Your task to perform on an android device: change text size in settings app Image 0: 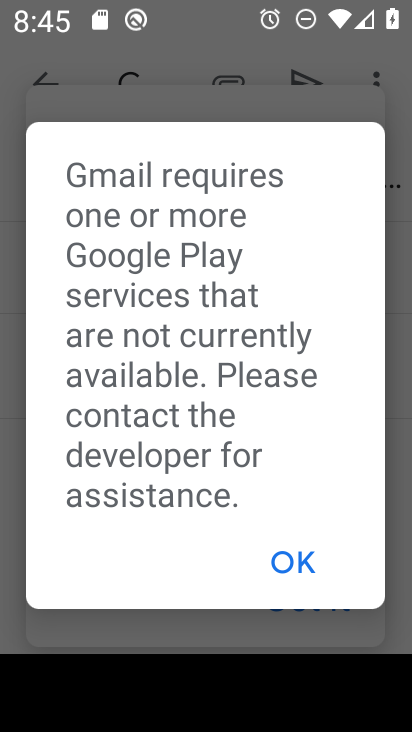
Step 0: press home button
Your task to perform on an android device: change text size in settings app Image 1: 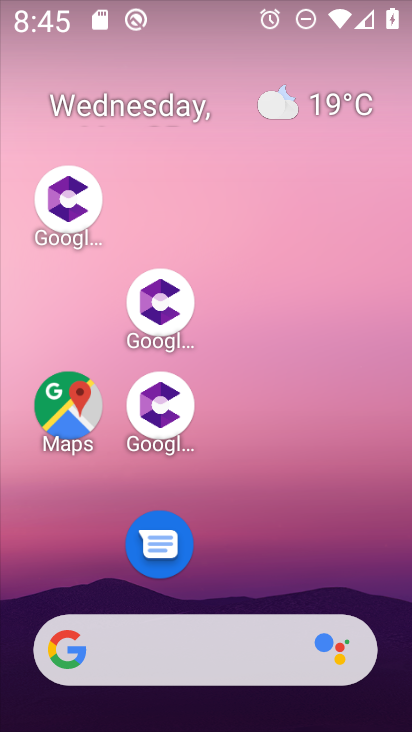
Step 1: drag from (274, 508) to (166, 0)
Your task to perform on an android device: change text size in settings app Image 2: 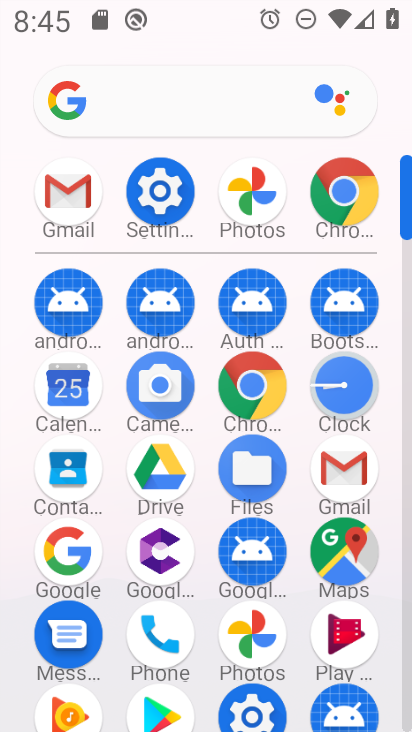
Step 2: click (157, 199)
Your task to perform on an android device: change text size in settings app Image 3: 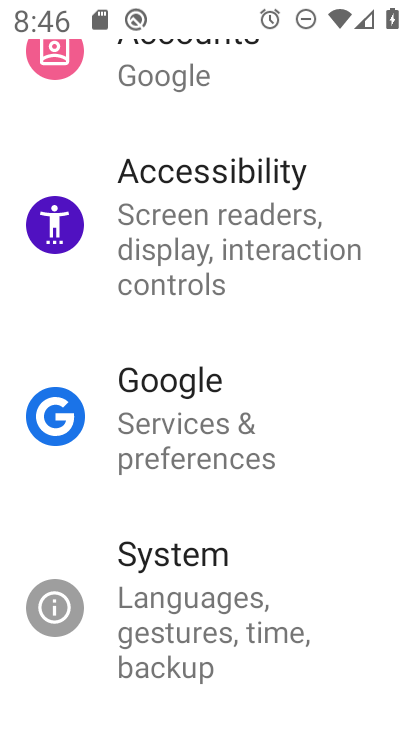
Step 3: drag from (228, 287) to (349, 725)
Your task to perform on an android device: change text size in settings app Image 4: 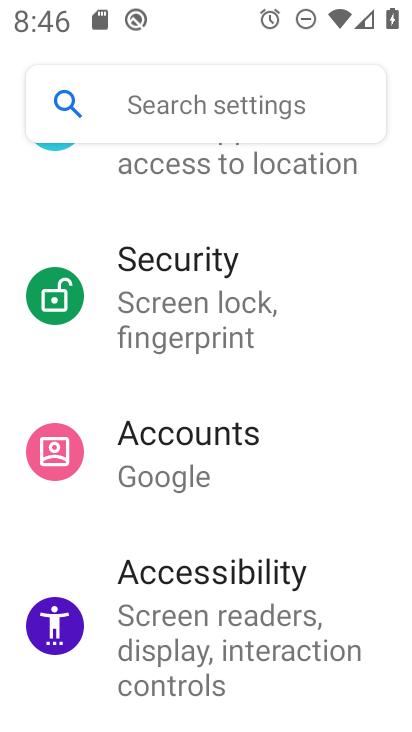
Step 4: drag from (249, 231) to (185, 703)
Your task to perform on an android device: change text size in settings app Image 5: 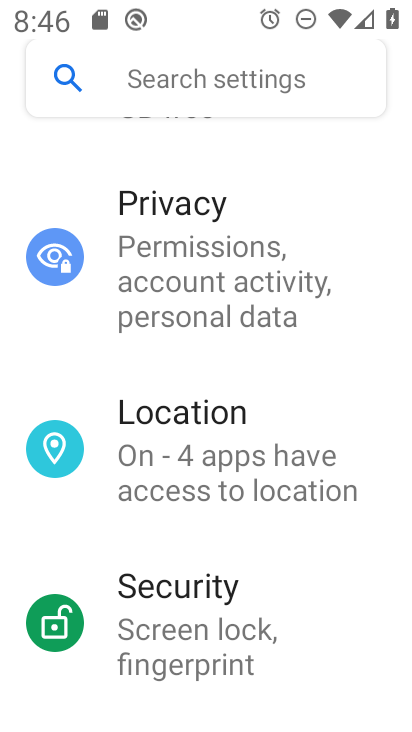
Step 5: drag from (331, 388) to (262, 675)
Your task to perform on an android device: change text size in settings app Image 6: 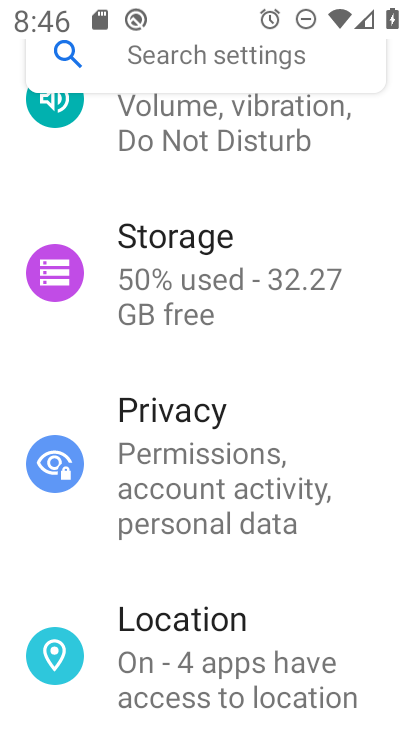
Step 6: drag from (294, 408) to (238, 601)
Your task to perform on an android device: change text size in settings app Image 7: 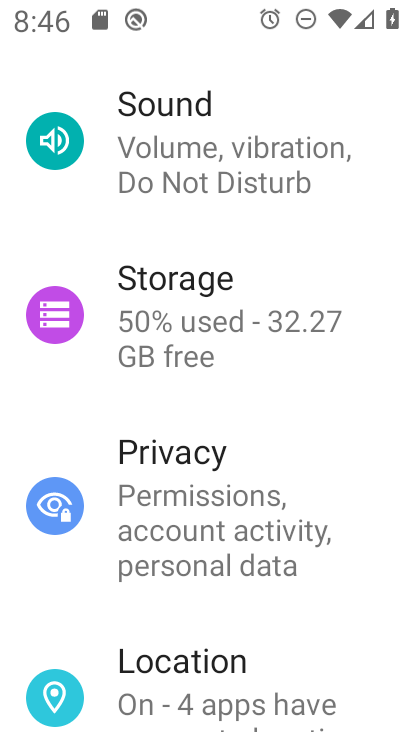
Step 7: drag from (218, 208) to (89, 692)
Your task to perform on an android device: change text size in settings app Image 8: 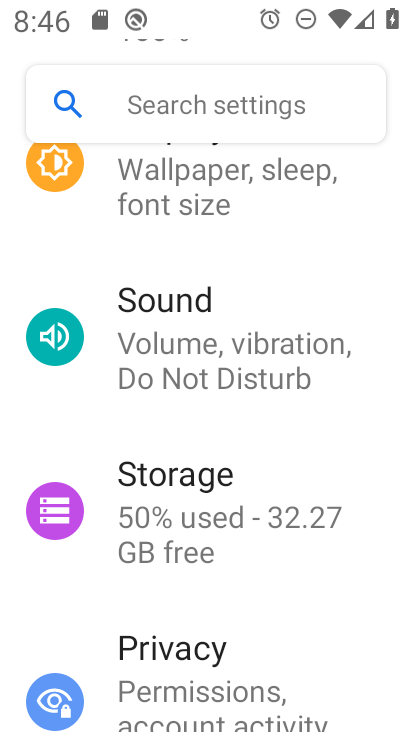
Step 8: click (175, 181)
Your task to perform on an android device: change text size in settings app Image 9: 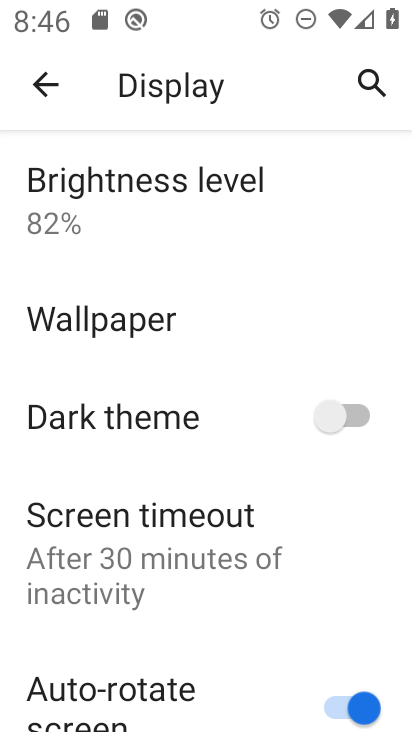
Step 9: drag from (204, 614) to (195, 101)
Your task to perform on an android device: change text size in settings app Image 10: 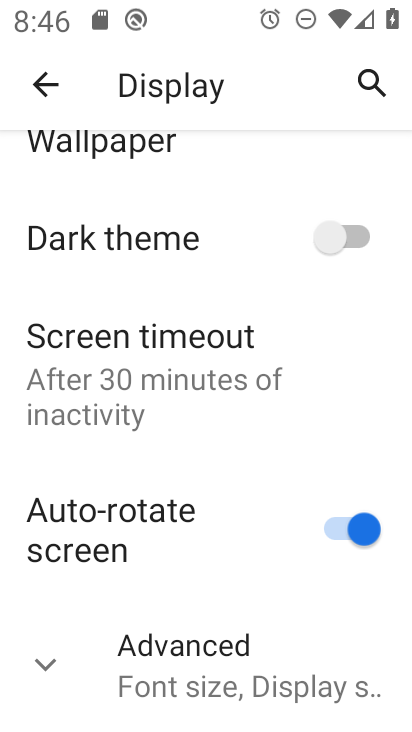
Step 10: click (65, 665)
Your task to perform on an android device: change text size in settings app Image 11: 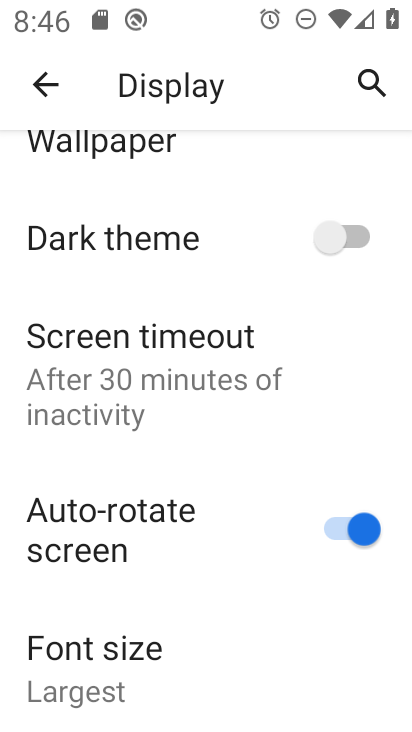
Step 11: click (90, 667)
Your task to perform on an android device: change text size in settings app Image 12: 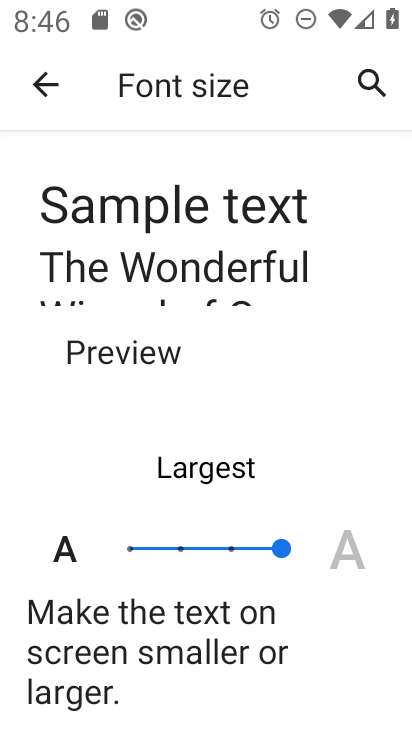
Step 12: click (226, 547)
Your task to perform on an android device: change text size in settings app Image 13: 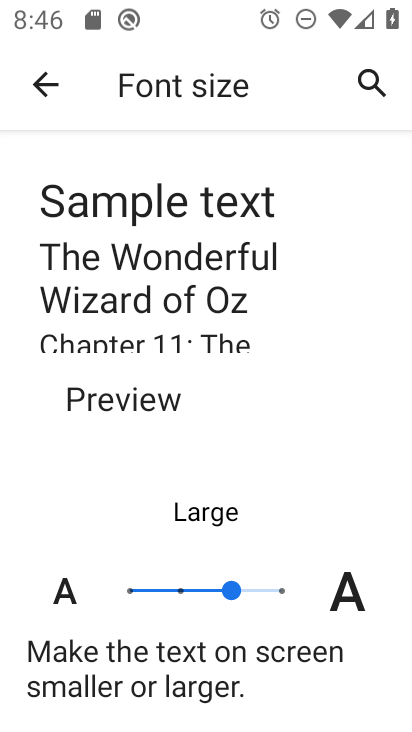
Step 13: task complete